Your task to perform on an android device: Open calendar and show me the third week of next month Image 0: 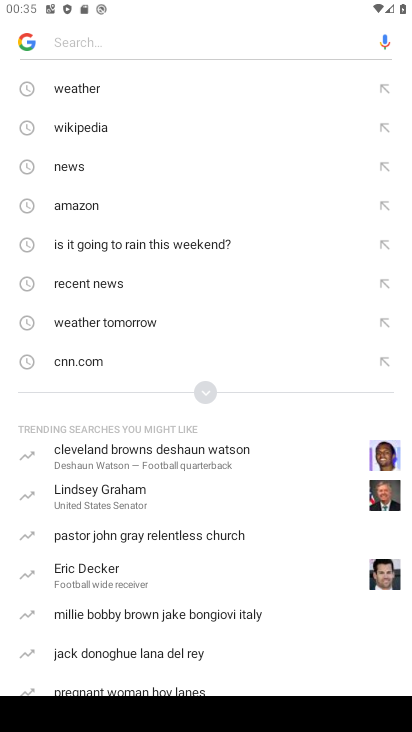
Step 0: press back button
Your task to perform on an android device: Open calendar and show me the third week of next month Image 1: 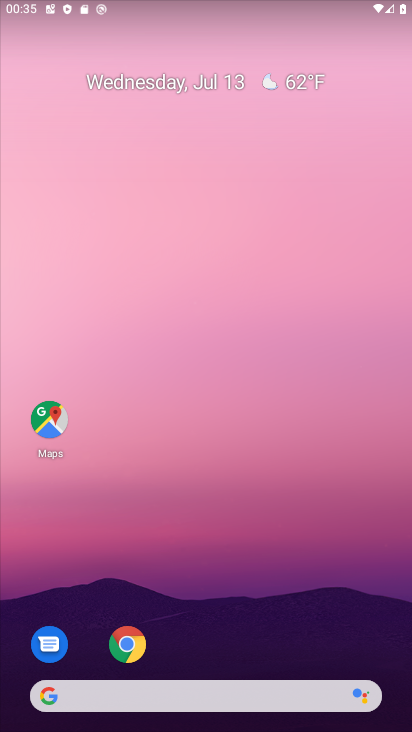
Step 1: drag from (193, 641) to (123, 235)
Your task to perform on an android device: Open calendar and show me the third week of next month Image 2: 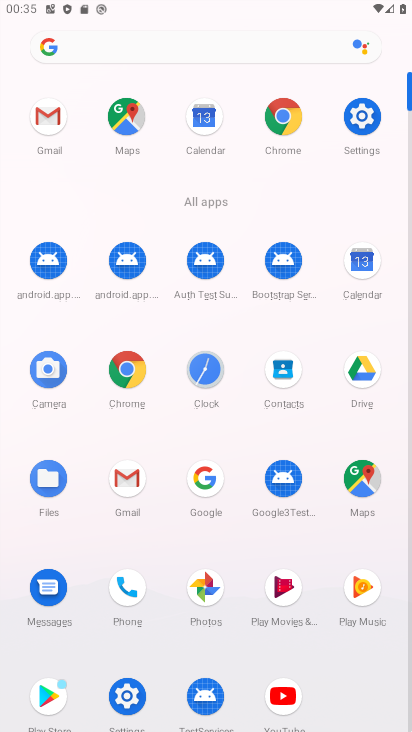
Step 2: click (358, 263)
Your task to perform on an android device: Open calendar and show me the third week of next month Image 3: 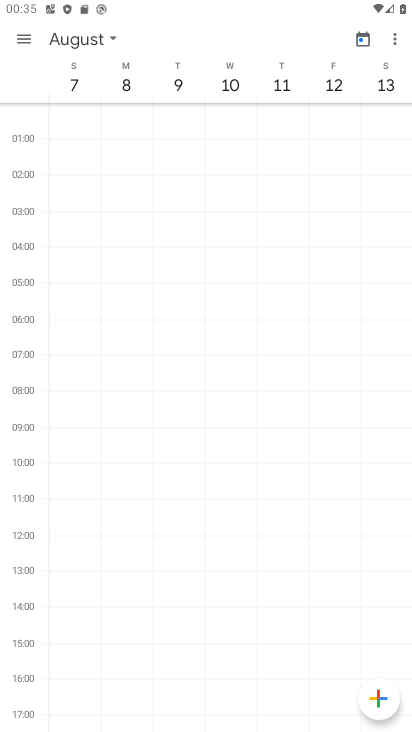
Step 3: task complete